Your task to perform on an android device: find which apps use the phone's location Image 0: 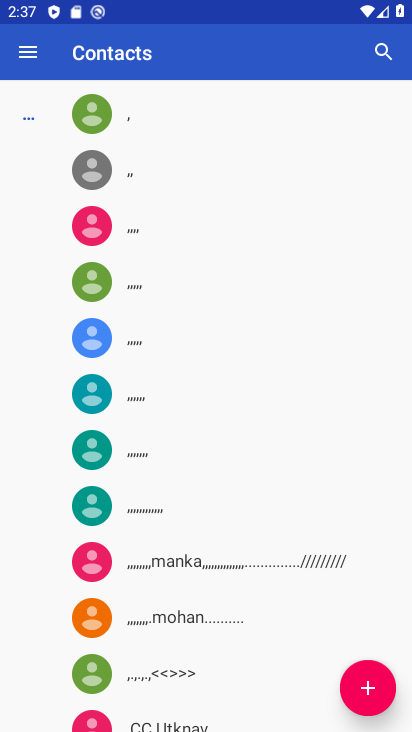
Step 0: press home button
Your task to perform on an android device: find which apps use the phone's location Image 1: 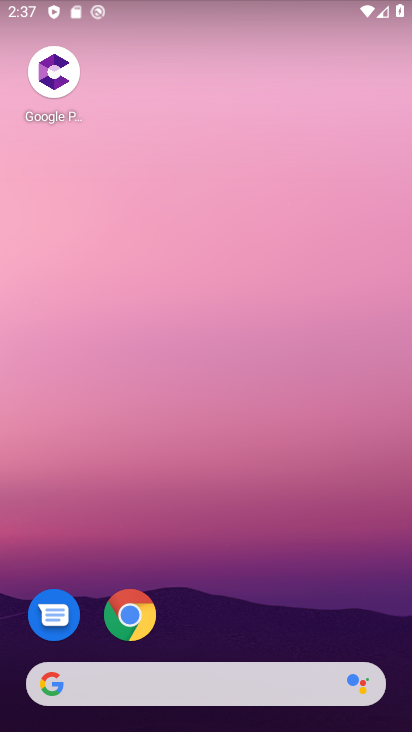
Step 1: drag from (350, 648) to (334, 7)
Your task to perform on an android device: find which apps use the phone's location Image 2: 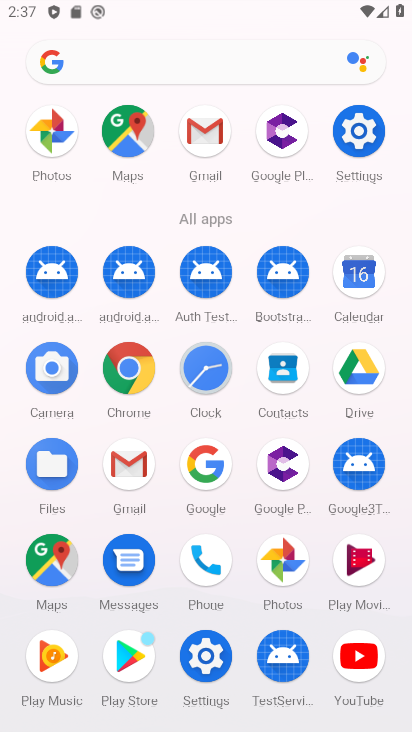
Step 2: click (349, 146)
Your task to perform on an android device: find which apps use the phone's location Image 3: 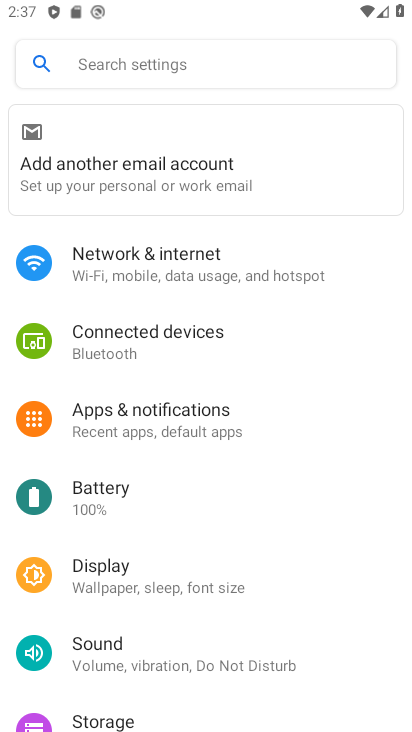
Step 3: drag from (302, 619) to (314, 220)
Your task to perform on an android device: find which apps use the phone's location Image 4: 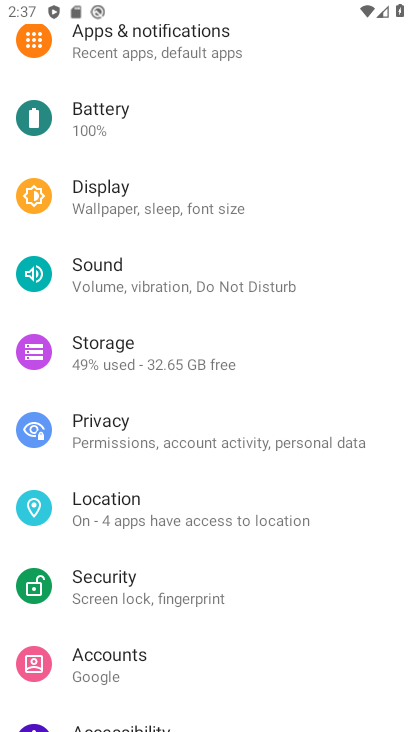
Step 4: click (106, 520)
Your task to perform on an android device: find which apps use the phone's location Image 5: 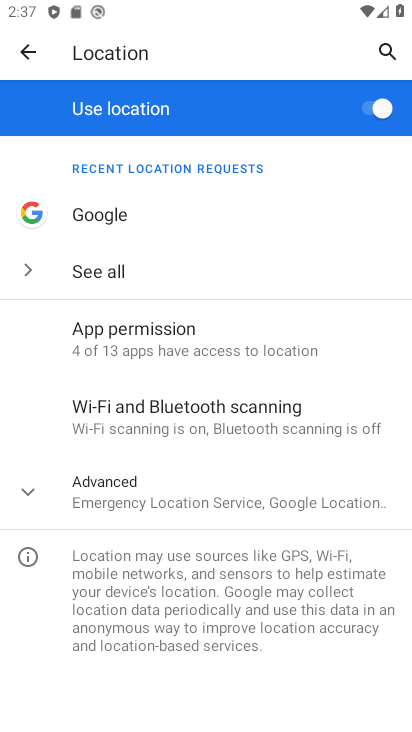
Step 5: click (94, 329)
Your task to perform on an android device: find which apps use the phone's location Image 6: 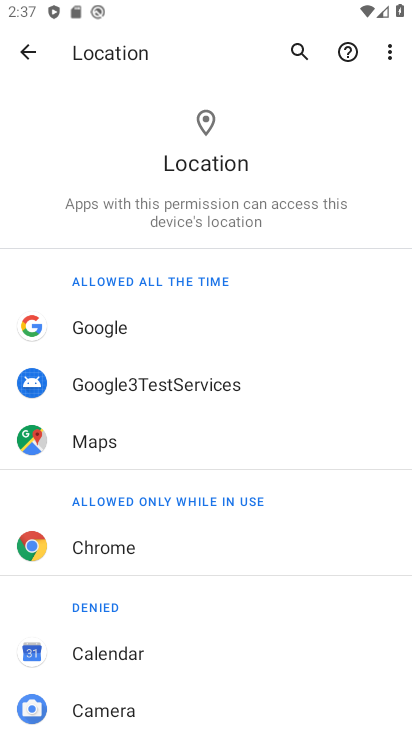
Step 6: task complete